Your task to perform on an android device: Search for seafood restaurants on Google Maps Image 0: 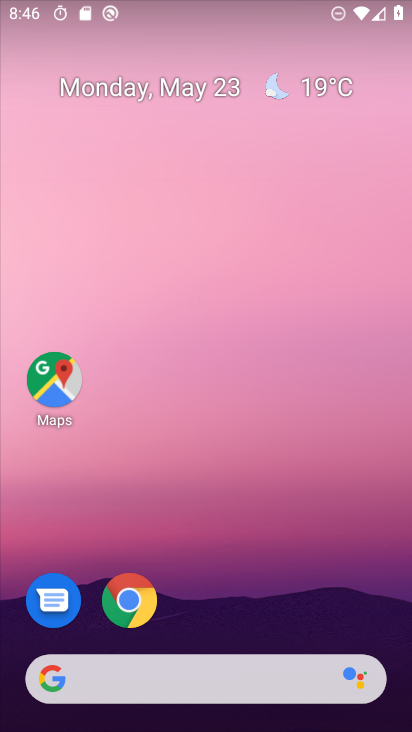
Step 0: click (62, 365)
Your task to perform on an android device: Search for seafood restaurants on Google Maps Image 1: 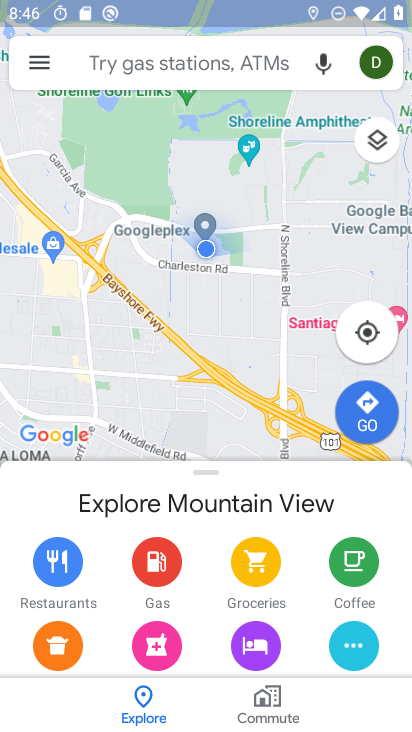
Step 1: click (213, 58)
Your task to perform on an android device: Search for seafood restaurants on Google Maps Image 2: 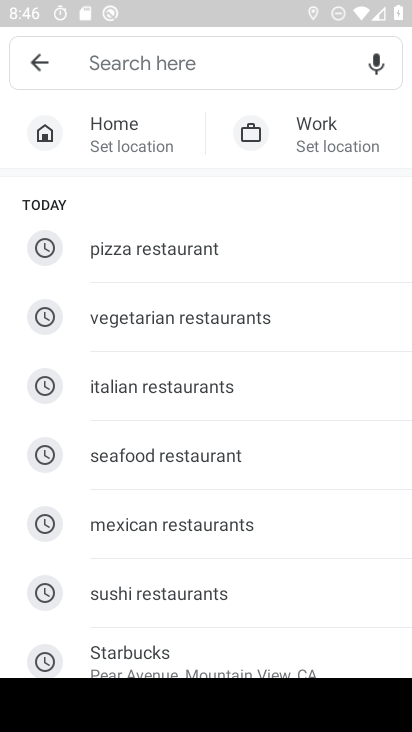
Step 2: click (152, 441)
Your task to perform on an android device: Search for seafood restaurants on Google Maps Image 3: 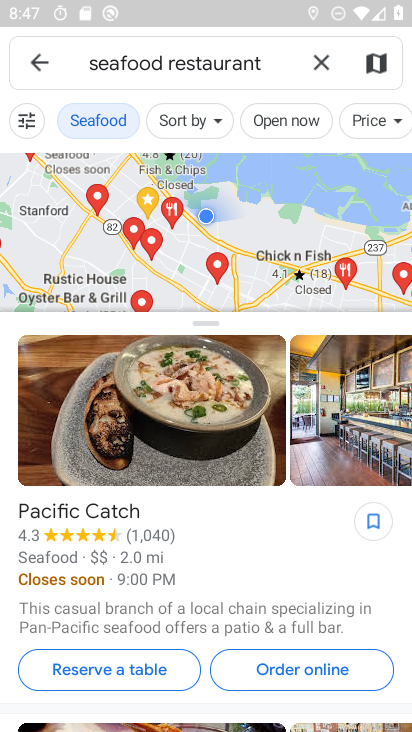
Step 3: task complete